Your task to perform on an android device: Is it going to rain today? Image 0: 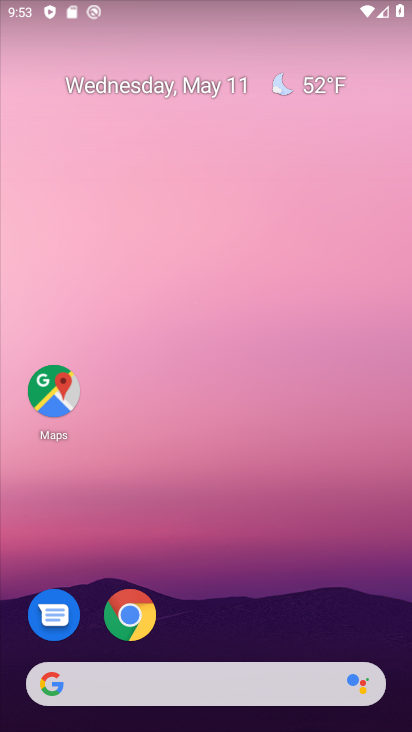
Step 0: drag from (217, 488) to (408, 0)
Your task to perform on an android device: Is it going to rain today? Image 1: 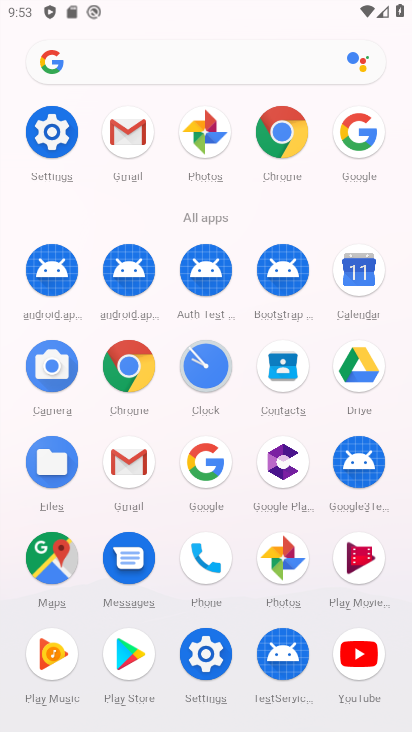
Step 1: click (355, 131)
Your task to perform on an android device: Is it going to rain today? Image 2: 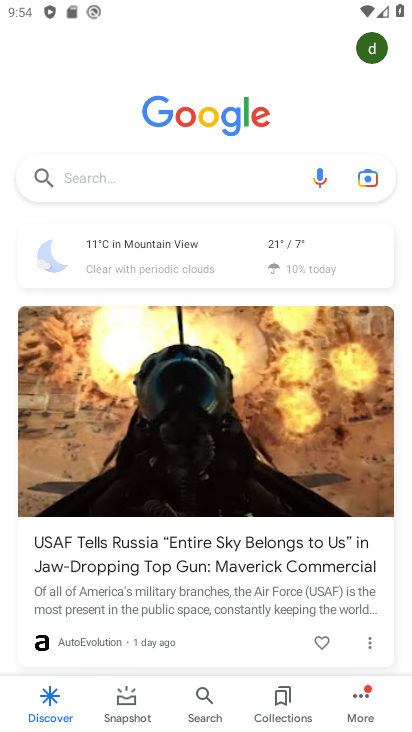
Step 2: click (265, 261)
Your task to perform on an android device: Is it going to rain today? Image 3: 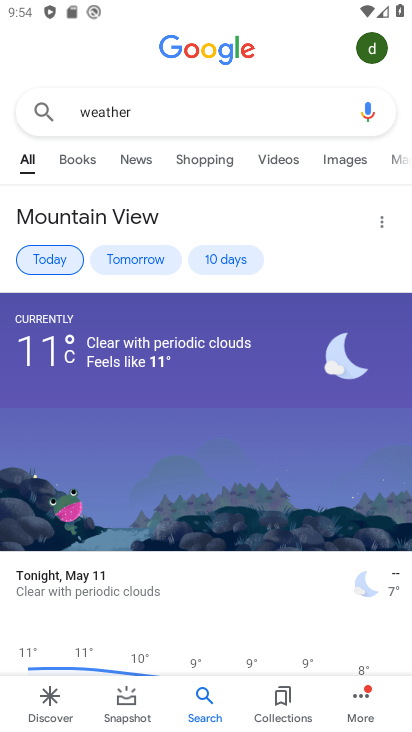
Step 3: task complete